Your task to perform on an android device: open the mobile data screen to see how much data has been used Image 0: 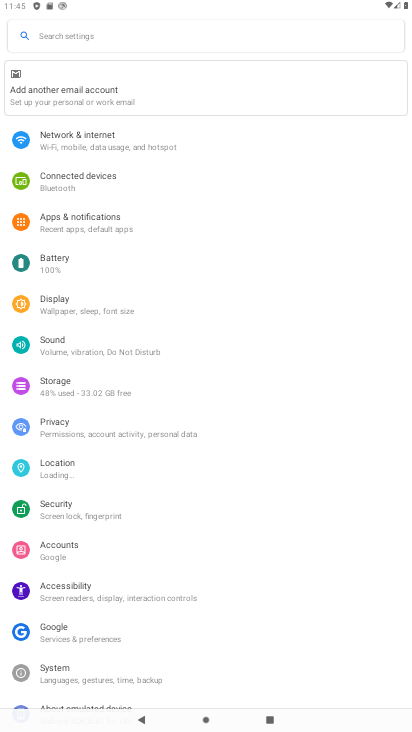
Step 0: press home button
Your task to perform on an android device: open the mobile data screen to see how much data has been used Image 1: 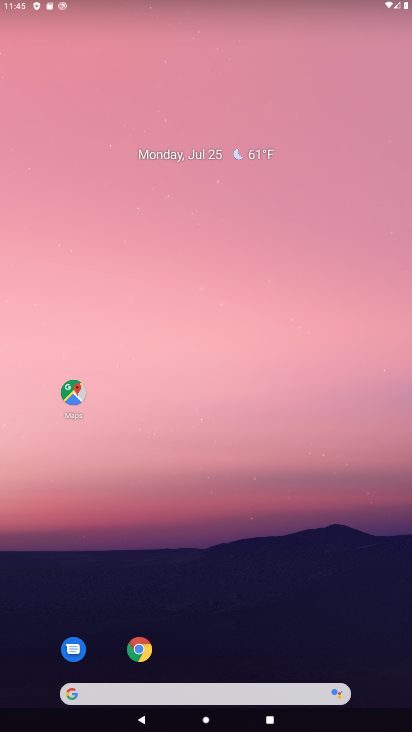
Step 1: drag from (196, 663) to (172, 67)
Your task to perform on an android device: open the mobile data screen to see how much data has been used Image 2: 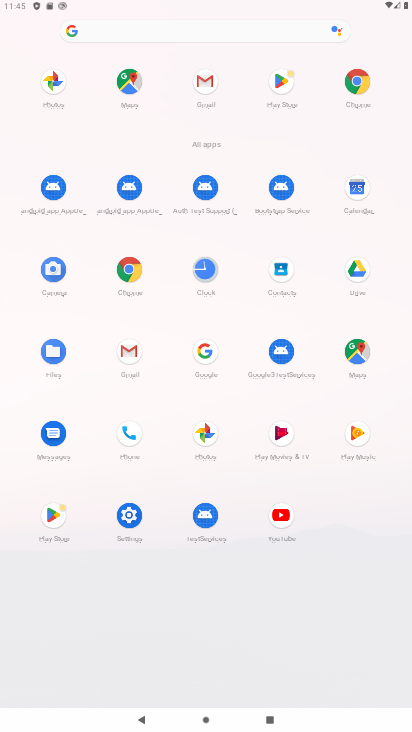
Step 2: click (140, 519)
Your task to perform on an android device: open the mobile data screen to see how much data has been used Image 3: 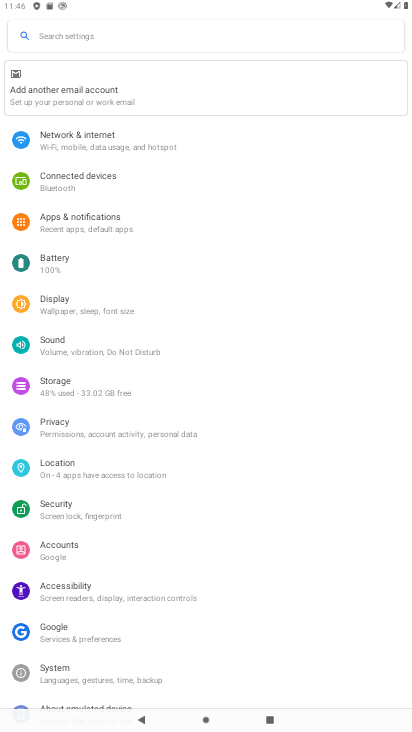
Step 3: click (91, 140)
Your task to perform on an android device: open the mobile data screen to see how much data has been used Image 4: 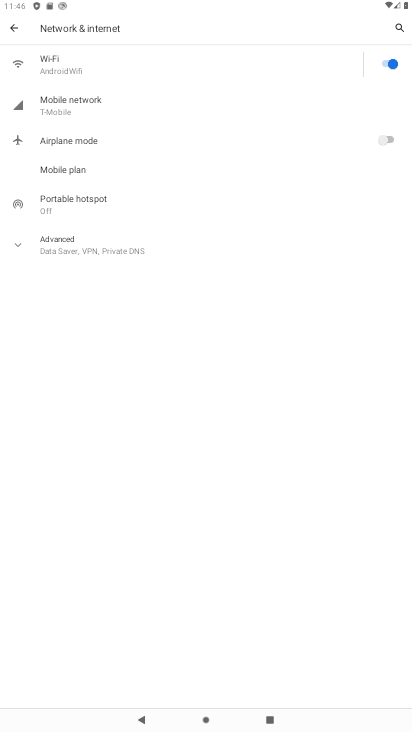
Step 4: click (82, 93)
Your task to perform on an android device: open the mobile data screen to see how much data has been used Image 5: 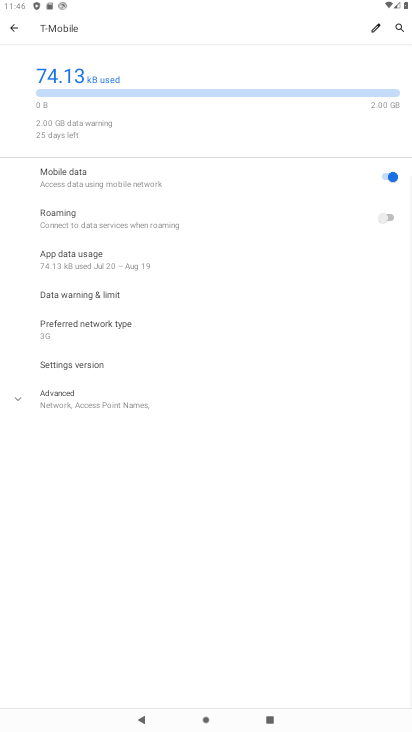
Step 5: task complete